Your task to perform on an android device: Show me popular games on the Play Store Image 0: 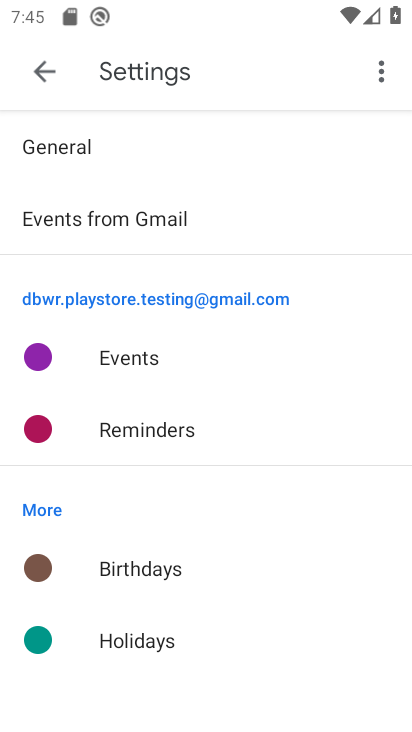
Step 0: press home button
Your task to perform on an android device: Show me popular games on the Play Store Image 1: 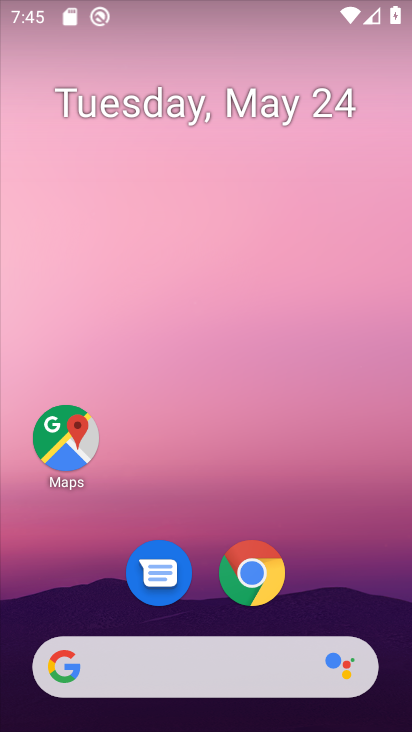
Step 1: drag from (395, 567) to (334, 142)
Your task to perform on an android device: Show me popular games on the Play Store Image 2: 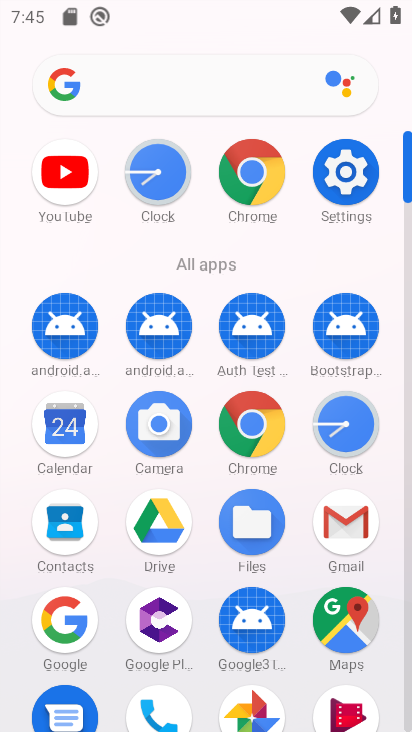
Step 2: drag from (409, 582) to (336, 219)
Your task to perform on an android device: Show me popular games on the Play Store Image 3: 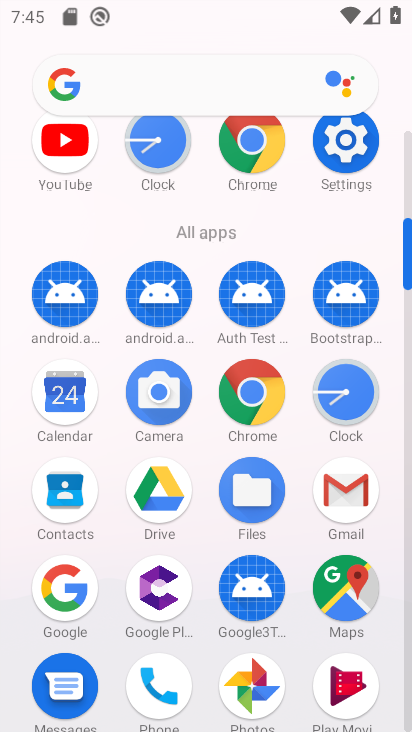
Step 3: drag from (394, 645) to (364, 303)
Your task to perform on an android device: Show me popular games on the Play Store Image 4: 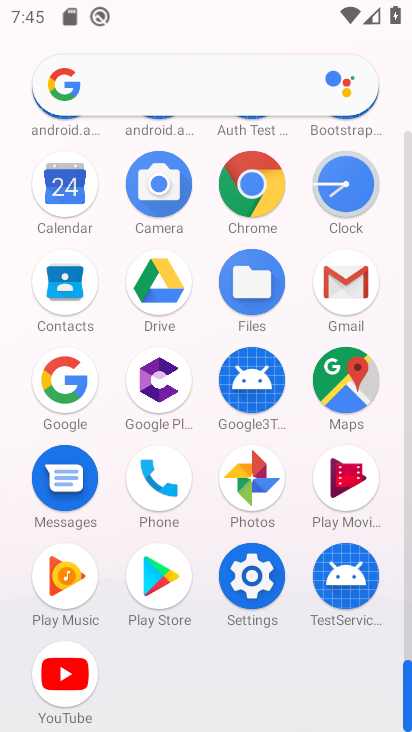
Step 4: click (160, 587)
Your task to perform on an android device: Show me popular games on the Play Store Image 5: 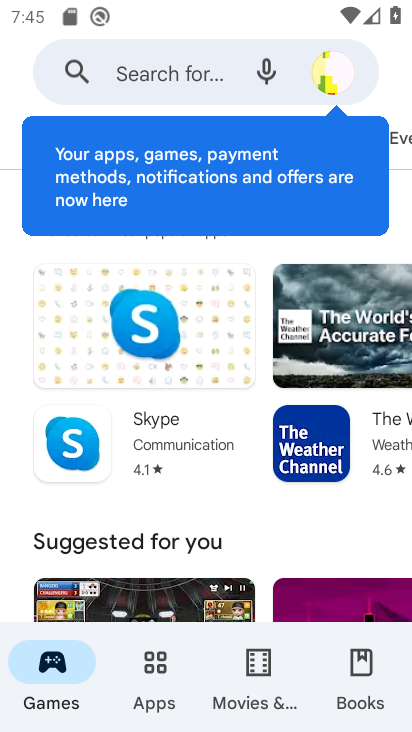
Step 5: click (172, 86)
Your task to perform on an android device: Show me popular games on the Play Store Image 6: 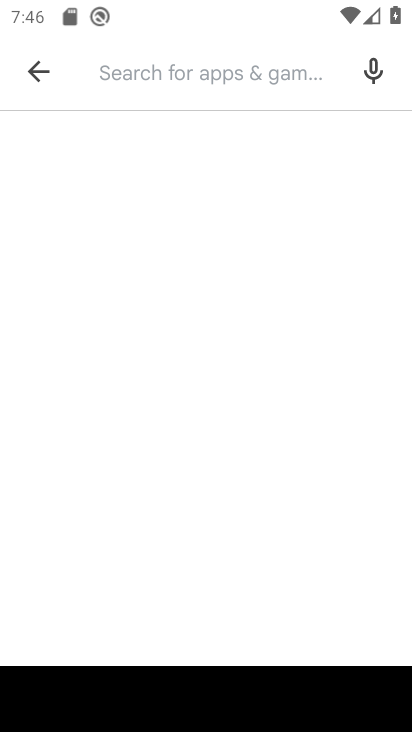
Step 6: type "popular games"
Your task to perform on an android device: Show me popular games on the Play Store Image 7: 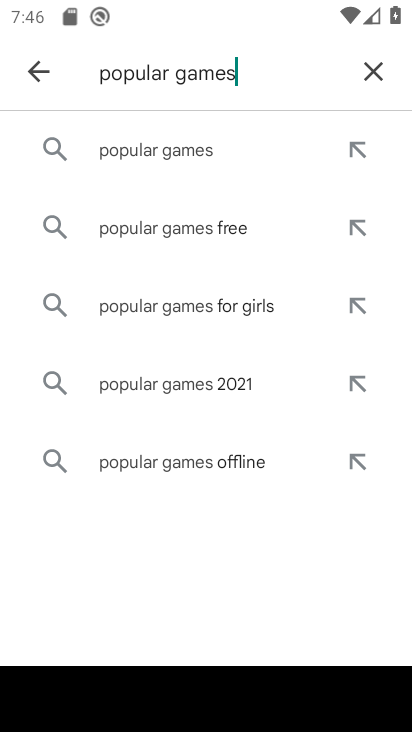
Step 7: click (145, 160)
Your task to perform on an android device: Show me popular games on the Play Store Image 8: 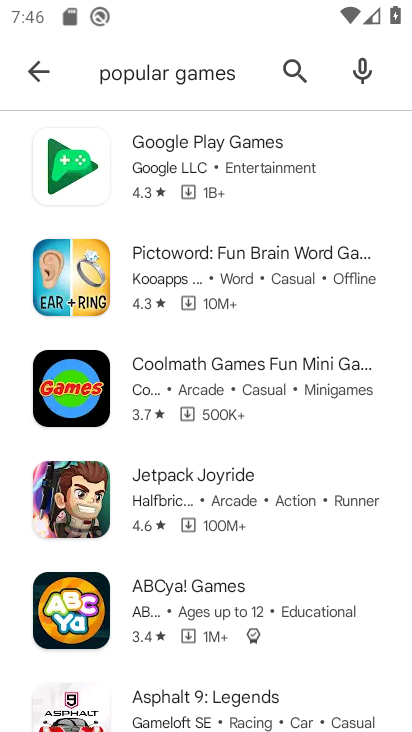
Step 8: task complete